Your task to perform on an android device: change the upload size in google photos Image 0: 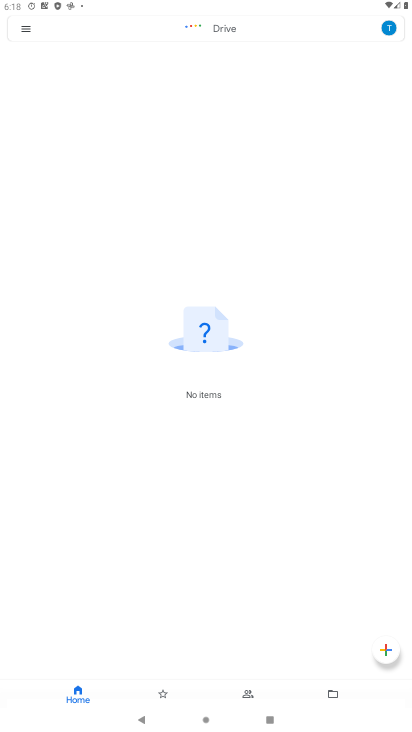
Step 0: press home button
Your task to perform on an android device: change the upload size in google photos Image 1: 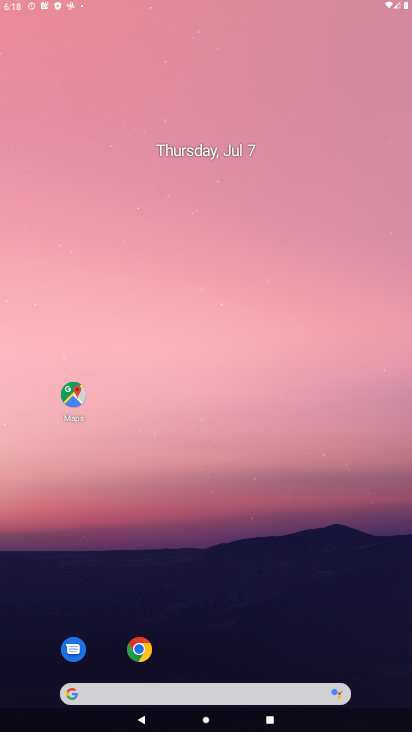
Step 1: drag from (394, 670) to (196, 42)
Your task to perform on an android device: change the upload size in google photos Image 2: 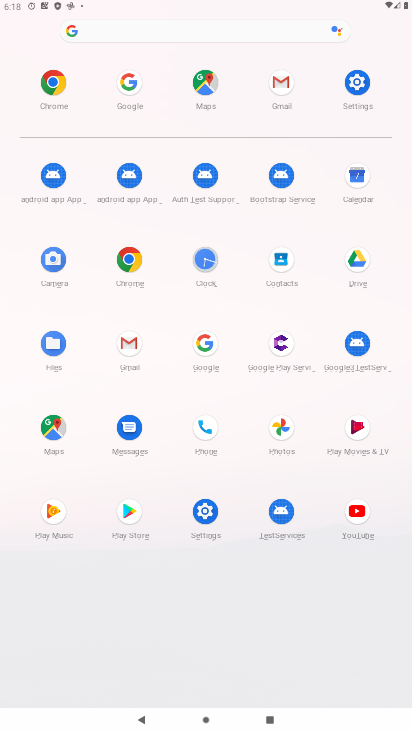
Step 2: click (287, 427)
Your task to perform on an android device: change the upload size in google photos Image 3: 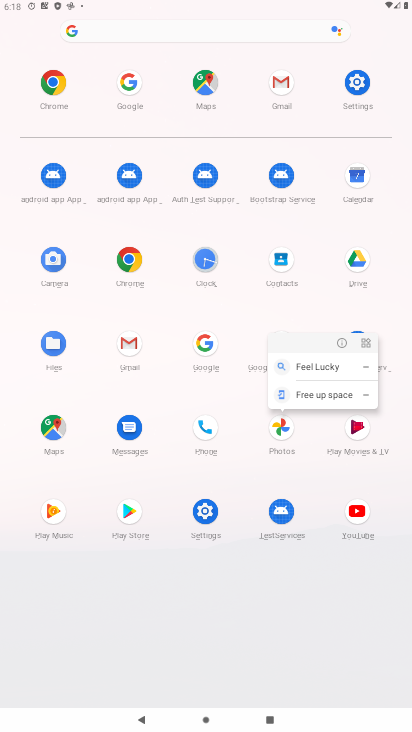
Step 3: click (287, 427)
Your task to perform on an android device: change the upload size in google photos Image 4: 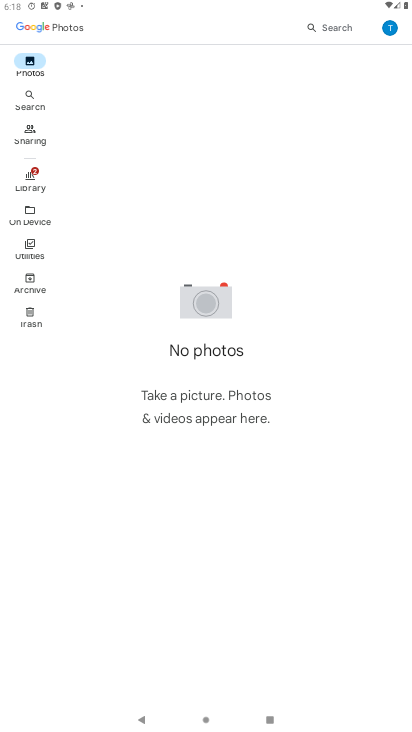
Step 4: task complete